Your task to perform on an android device: open wifi settings Image 0: 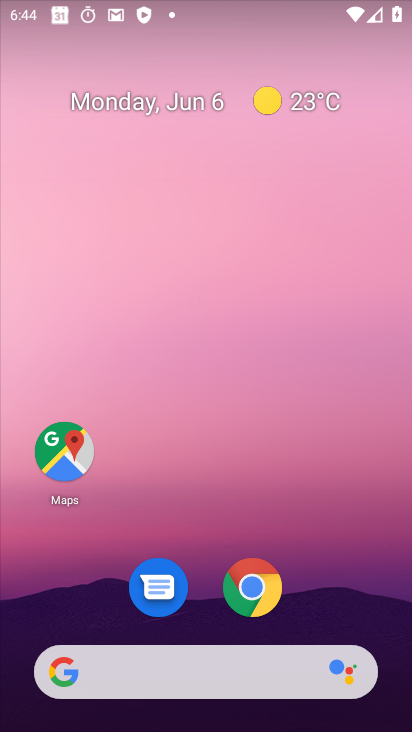
Step 0: drag from (380, 649) to (268, 48)
Your task to perform on an android device: open wifi settings Image 1: 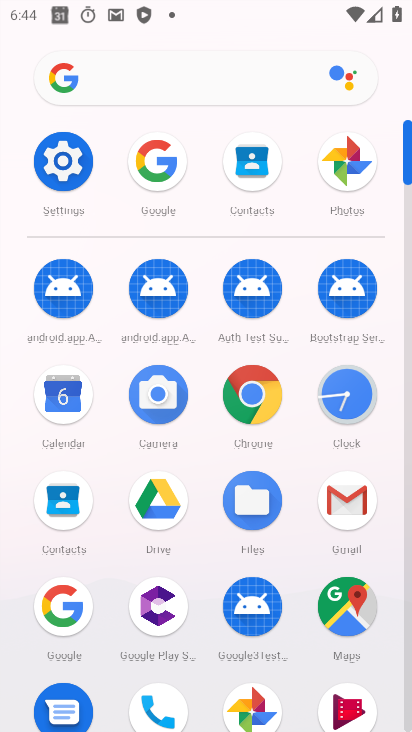
Step 1: click (45, 171)
Your task to perform on an android device: open wifi settings Image 2: 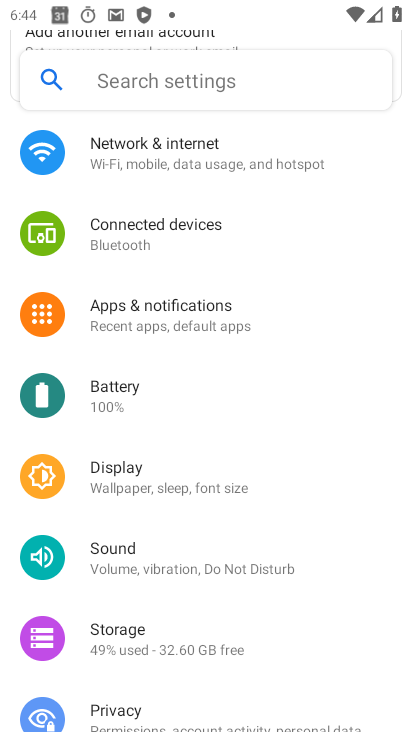
Step 2: click (193, 143)
Your task to perform on an android device: open wifi settings Image 3: 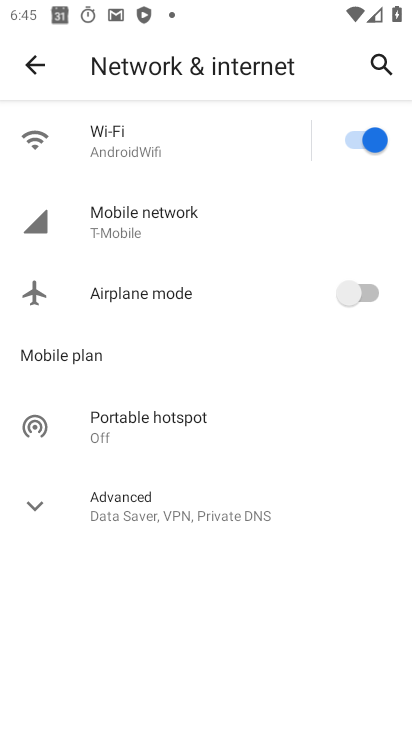
Step 3: click (41, 145)
Your task to perform on an android device: open wifi settings Image 4: 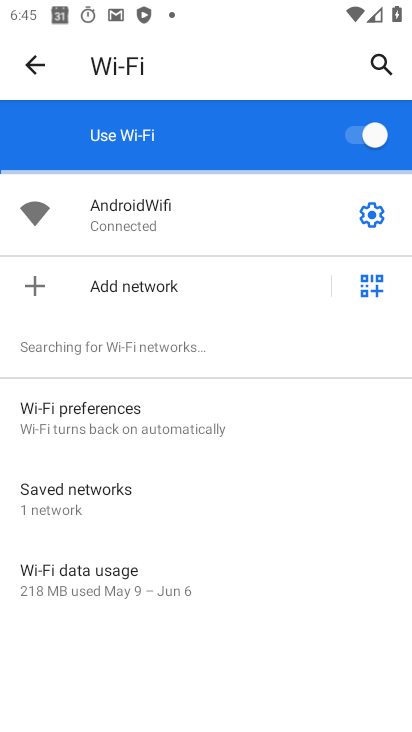
Step 4: task complete